Your task to perform on an android device: turn on the 24-hour format for clock Image 0: 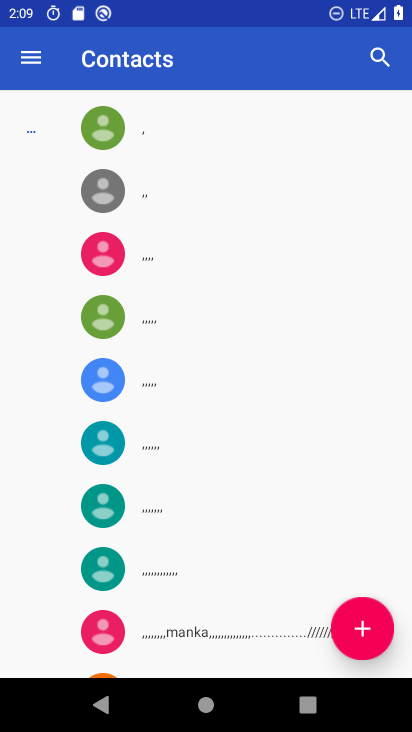
Step 0: press home button
Your task to perform on an android device: turn on the 24-hour format for clock Image 1: 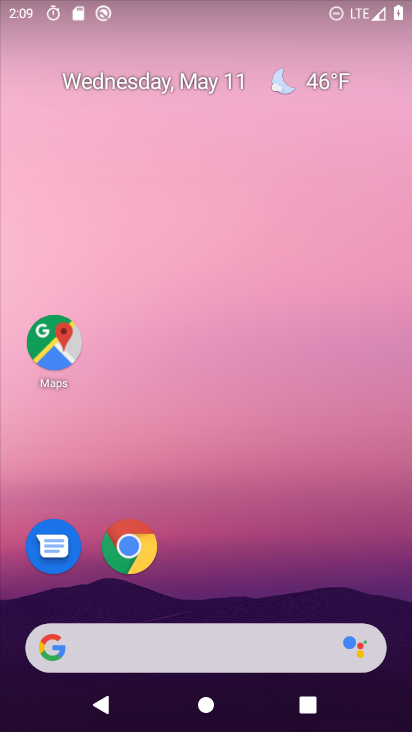
Step 1: drag from (240, 662) to (185, 171)
Your task to perform on an android device: turn on the 24-hour format for clock Image 2: 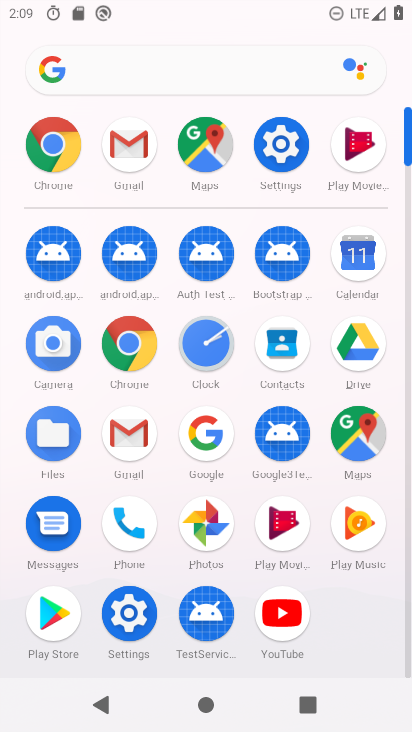
Step 2: click (202, 351)
Your task to perform on an android device: turn on the 24-hour format for clock Image 3: 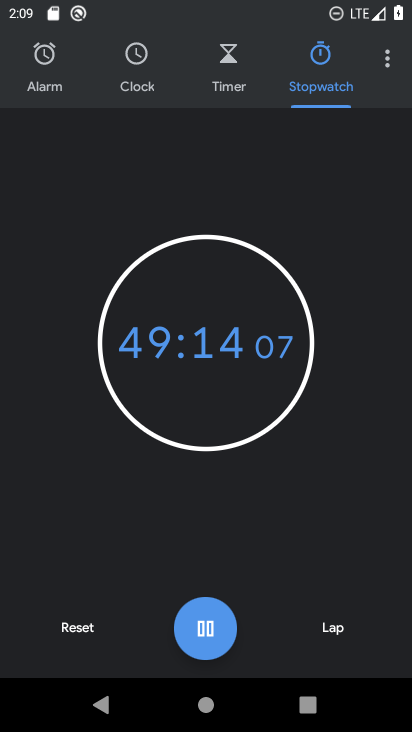
Step 3: click (368, 77)
Your task to perform on an android device: turn on the 24-hour format for clock Image 4: 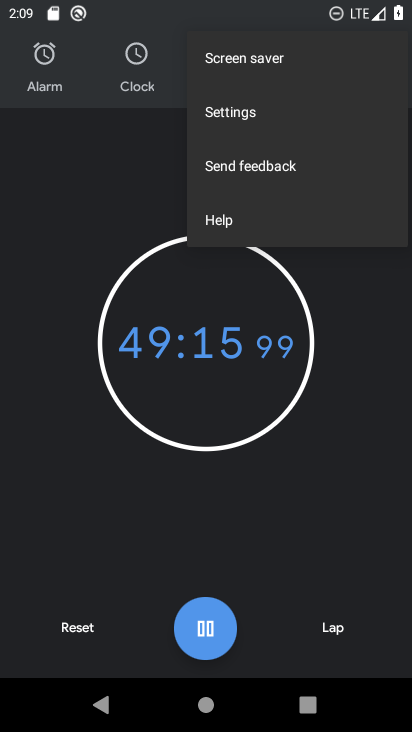
Step 4: click (288, 116)
Your task to perform on an android device: turn on the 24-hour format for clock Image 5: 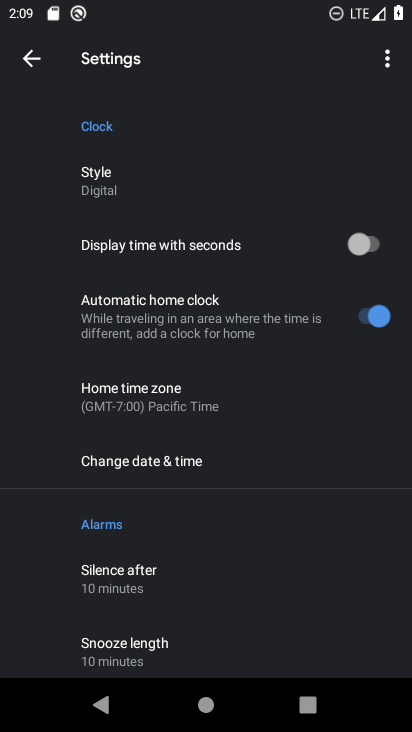
Step 5: drag from (177, 572) to (212, 399)
Your task to perform on an android device: turn on the 24-hour format for clock Image 6: 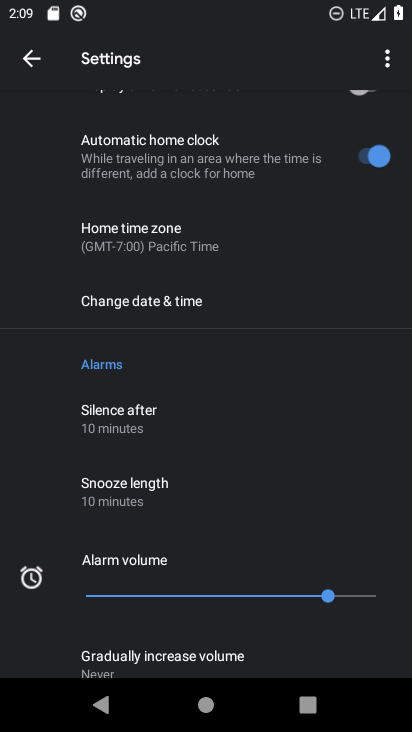
Step 6: click (176, 289)
Your task to perform on an android device: turn on the 24-hour format for clock Image 7: 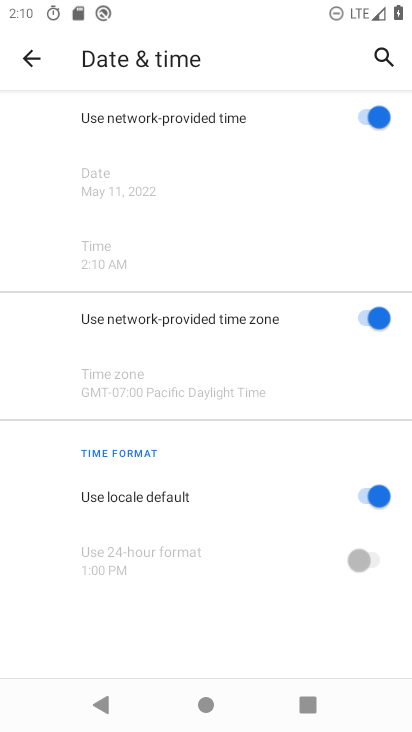
Step 7: click (354, 491)
Your task to perform on an android device: turn on the 24-hour format for clock Image 8: 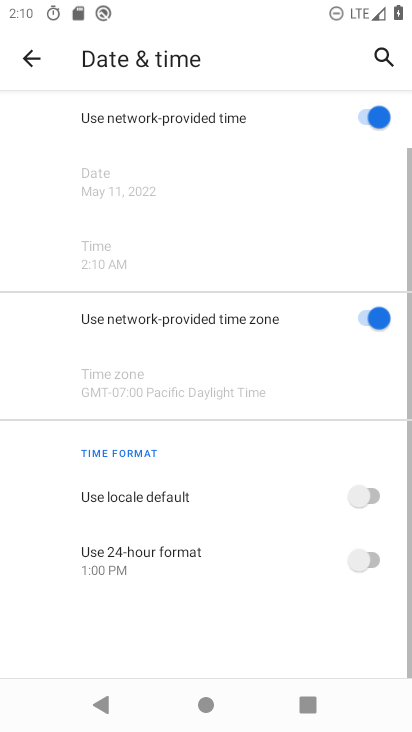
Step 8: click (373, 559)
Your task to perform on an android device: turn on the 24-hour format for clock Image 9: 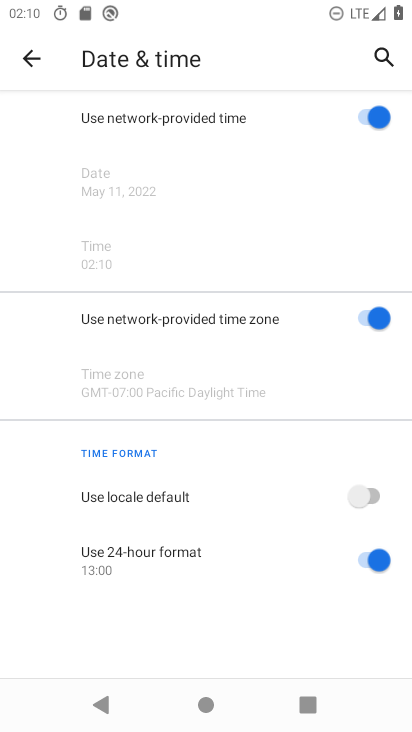
Step 9: task complete